Your task to perform on an android device: turn pop-ups on in chrome Image 0: 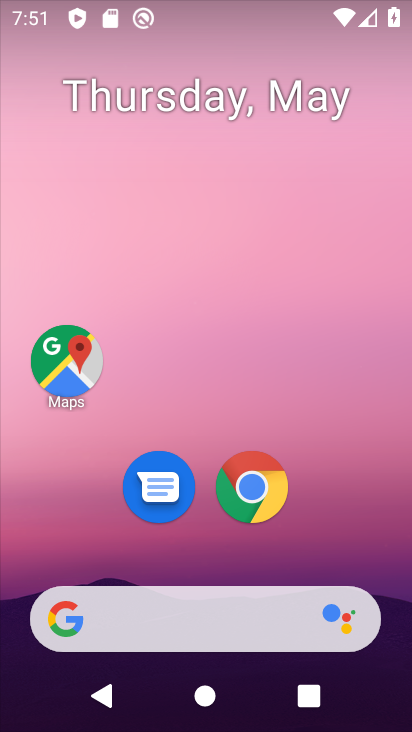
Step 0: click (249, 489)
Your task to perform on an android device: turn pop-ups on in chrome Image 1: 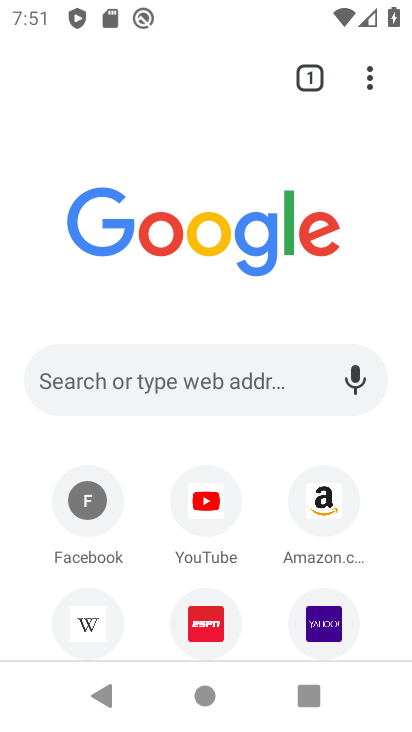
Step 1: click (371, 83)
Your task to perform on an android device: turn pop-ups on in chrome Image 2: 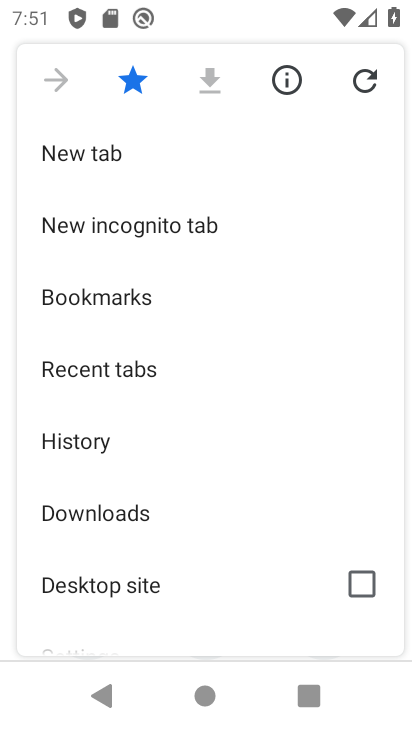
Step 2: drag from (211, 607) to (206, 257)
Your task to perform on an android device: turn pop-ups on in chrome Image 3: 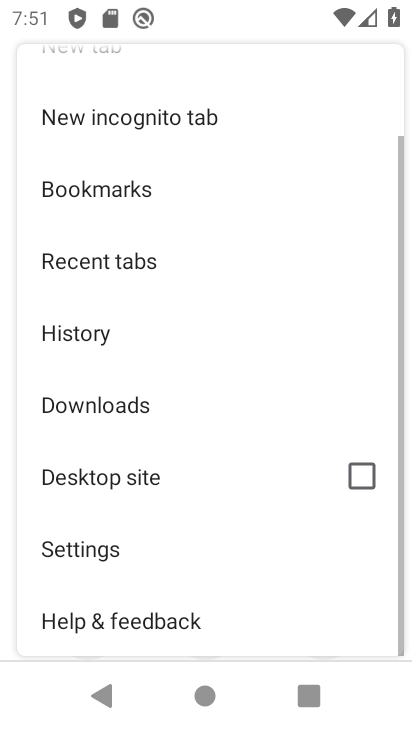
Step 3: click (108, 564)
Your task to perform on an android device: turn pop-ups on in chrome Image 4: 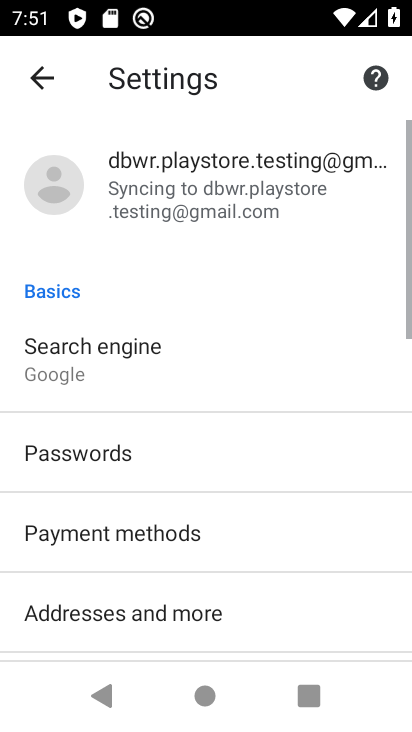
Step 4: drag from (288, 616) to (324, 216)
Your task to perform on an android device: turn pop-ups on in chrome Image 5: 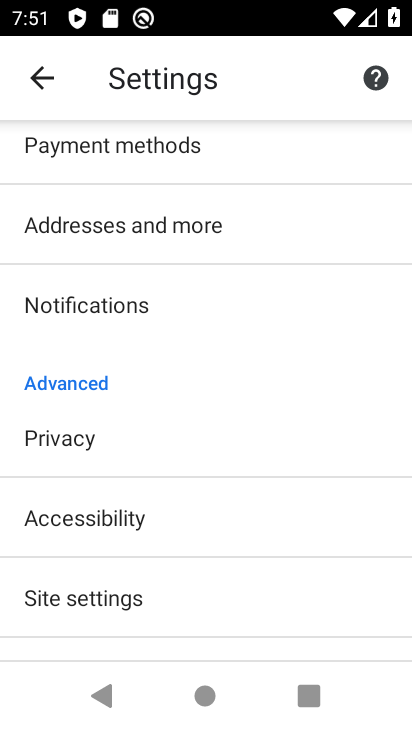
Step 5: click (94, 591)
Your task to perform on an android device: turn pop-ups on in chrome Image 6: 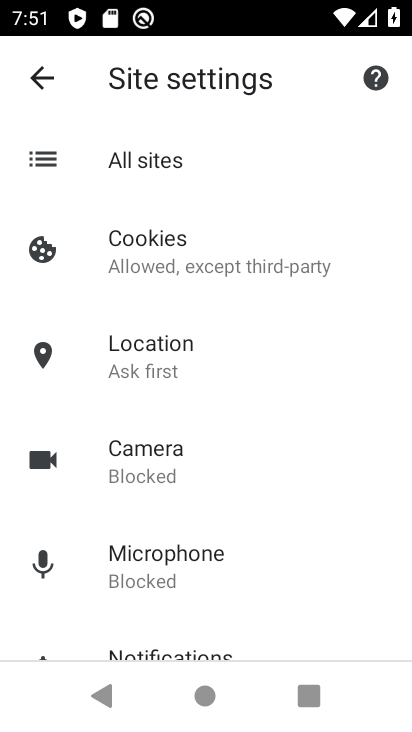
Step 6: drag from (299, 584) to (293, 297)
Your task to perform on an android device: turn pop-ups on in chrome Image 7: 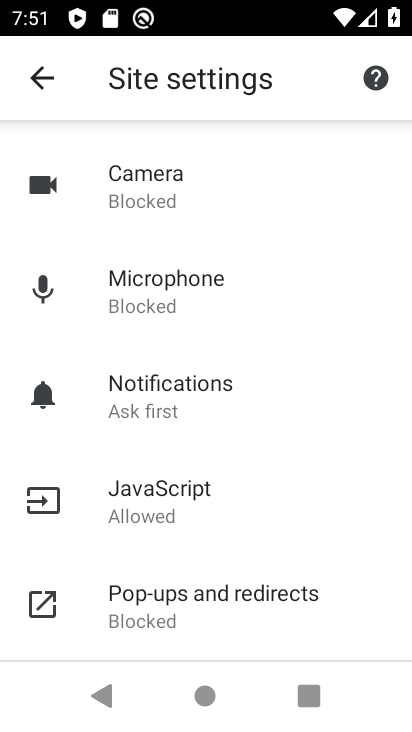
Step 7: click (255, 606)
Your task to perform on an android device: turn pop-ups on in chrome Image 8: 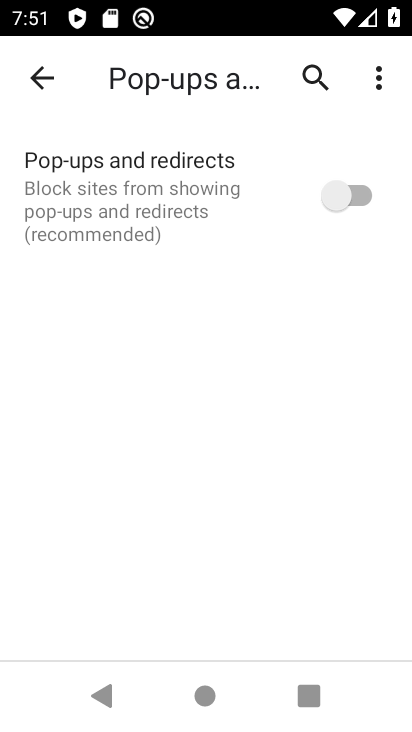
Step 8: click (364, 194)
Your task to perform on an android device: turn pop-ups on in chrome Image 9: 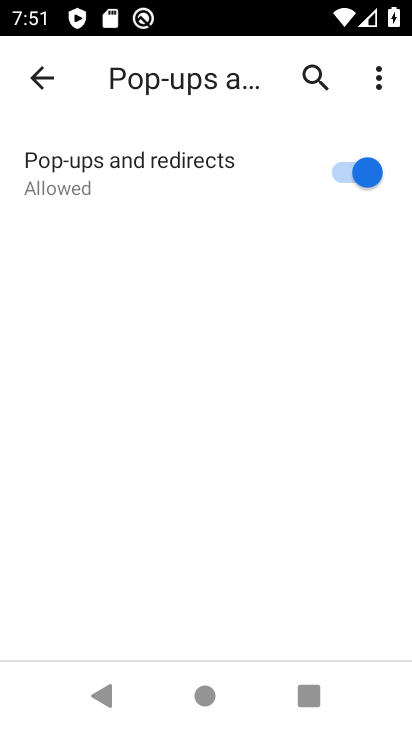
Step 9: task complete